Your task to perform on an android device: Add macbook pro 15 inch to the cart on costco.com, then select checkout. Image 0: 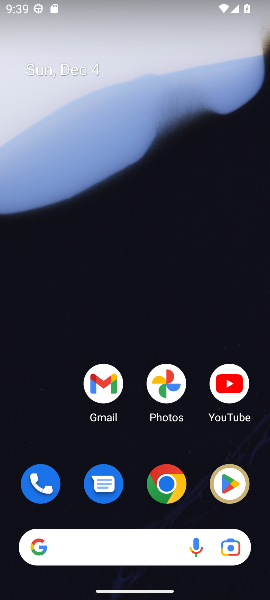
Step 0: click (173, 483)
Your task to perform on an android device: Add macbook pro 15 inch to the cart on costco.com, then select checkout. Image 1: 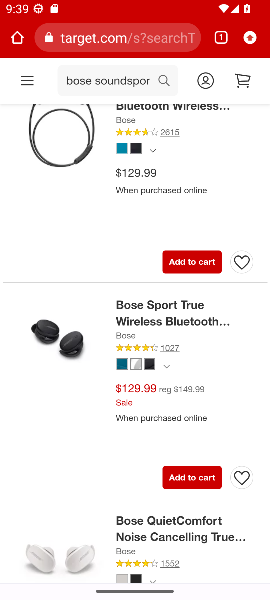
Step 1: click (120, 36)
Your task to perform on an android device: Add macbook pro 15 inch to the cart on costco.com, then select checkout. Image 2: 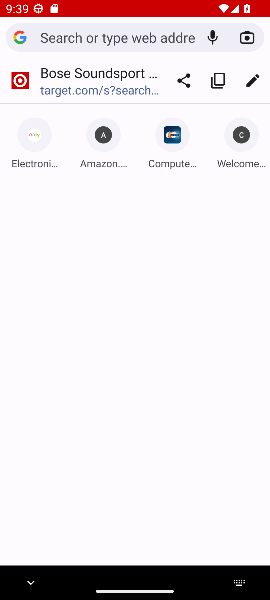
Step 2: type "costco.com"
Your task to perform on an android device: Add macbook pro 15 inch to the cart on costco.com, then select checkout. Image 3: 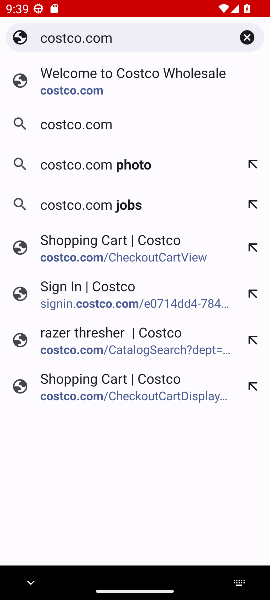
Step 3: click (75, 88)
Your task to perform on an android device: Add macbook pro 15 inch to the cart on costco.com, then select checkout. Image 4: 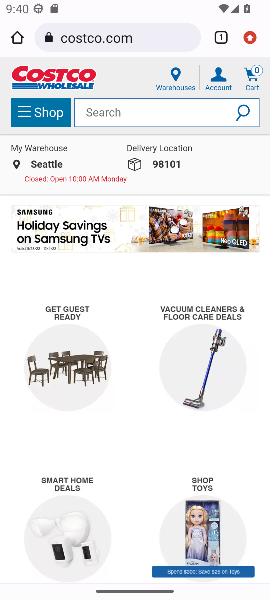
Step 4: click (92, 118)
Your task to perform on an android device: Add macbook pro 15 inch to the cart on costco.com, then select checkout. Image 5: 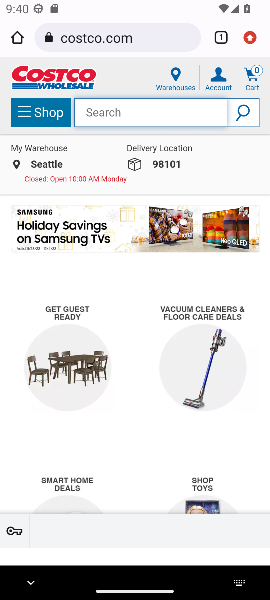
Step 5: type "macbook pro 15 inch"
Your task to perform on an android device: Add macbook pro 15 inch to the cart on costco.com, then select checkout. Image 6: 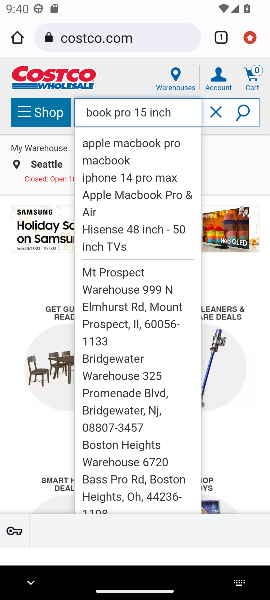
Step 6: click (241, 115)
Your task to perform on an android device: Add macbook pro 15 inch to the cart on costco.com, then select checkout. Image 7: 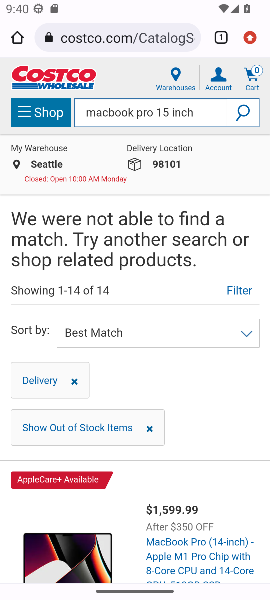
Step 7: task complete